Your task to perform on an android device: Add bose soundlink mini to the cart on amazon.com Image 0: 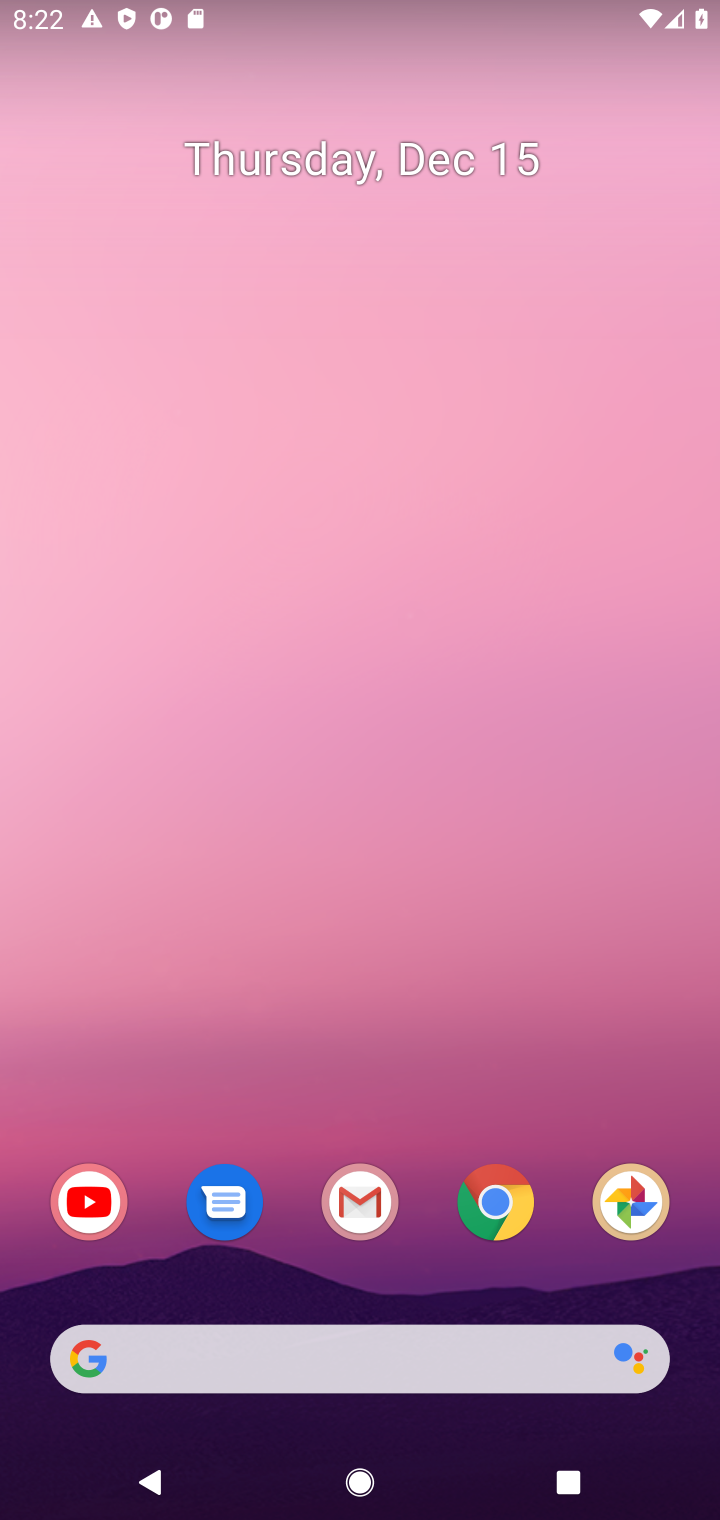
Step 0: click (481, 1220)
Your task to perform on an android device: Add bose soundlink mini to the cart on amazon.com Image 1: 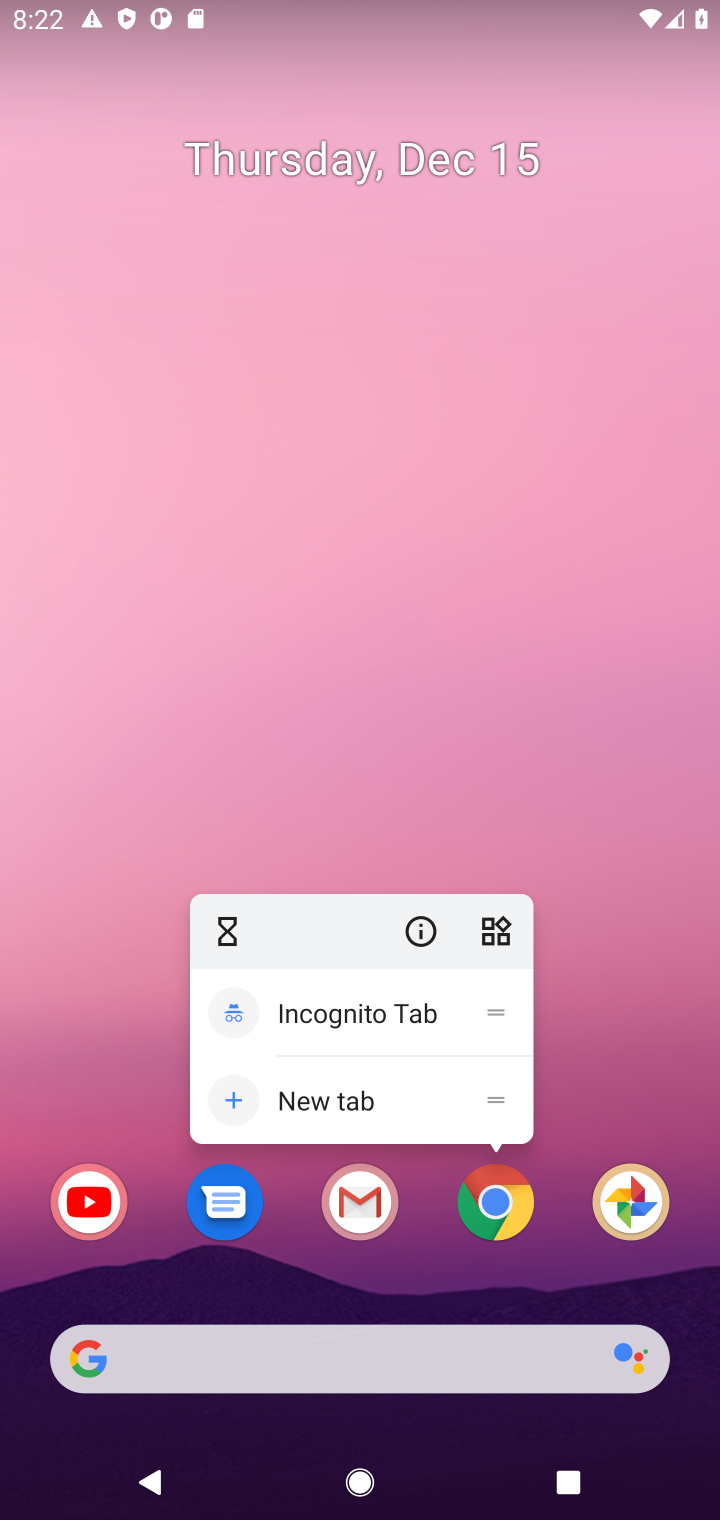
Step 1: click (481, 1220)
Your task to perform on an android device: Add bose soundlink mini to the cart on amazon.com Image 2: 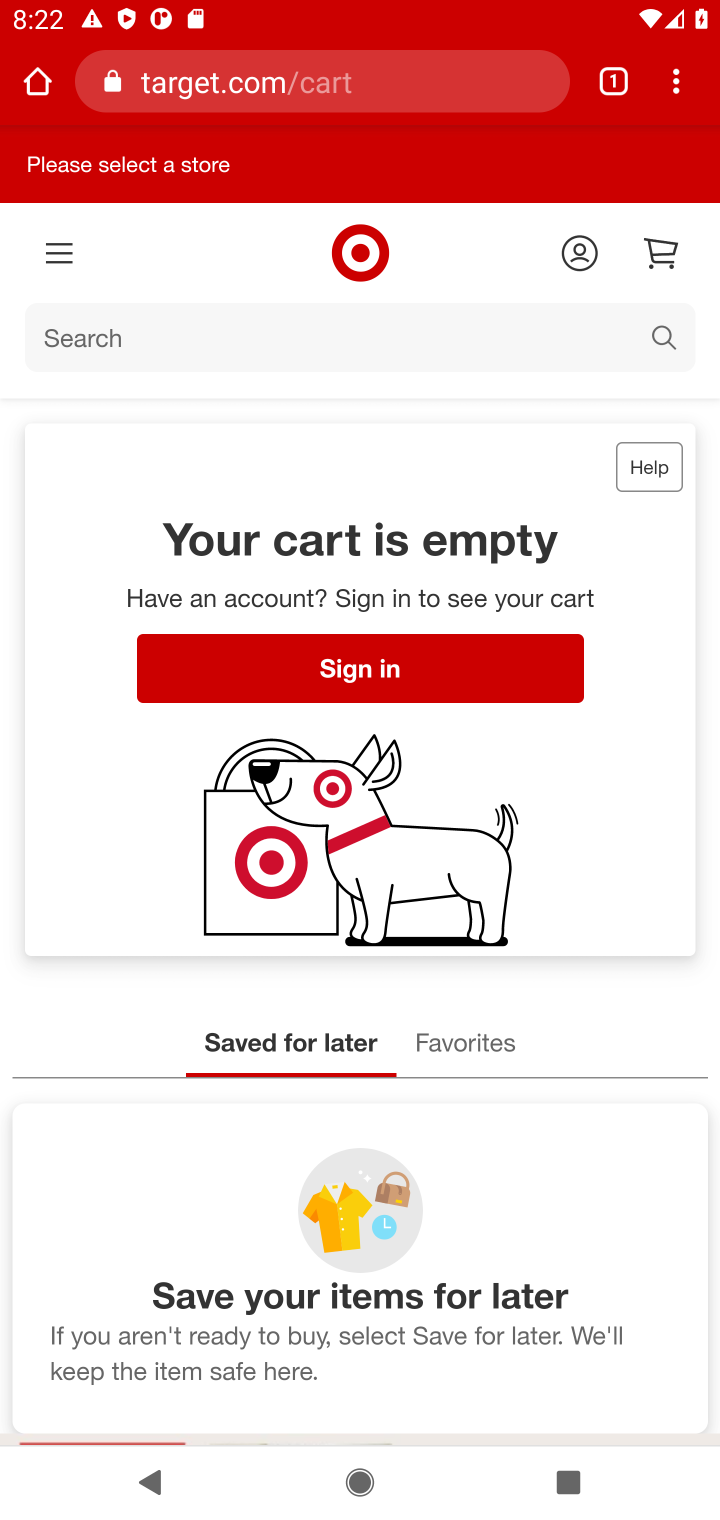
Step 2: click (265, 89)
Your task to perform on an android device: Add bose soundlink mini to the cart on amazon.com Image 3: 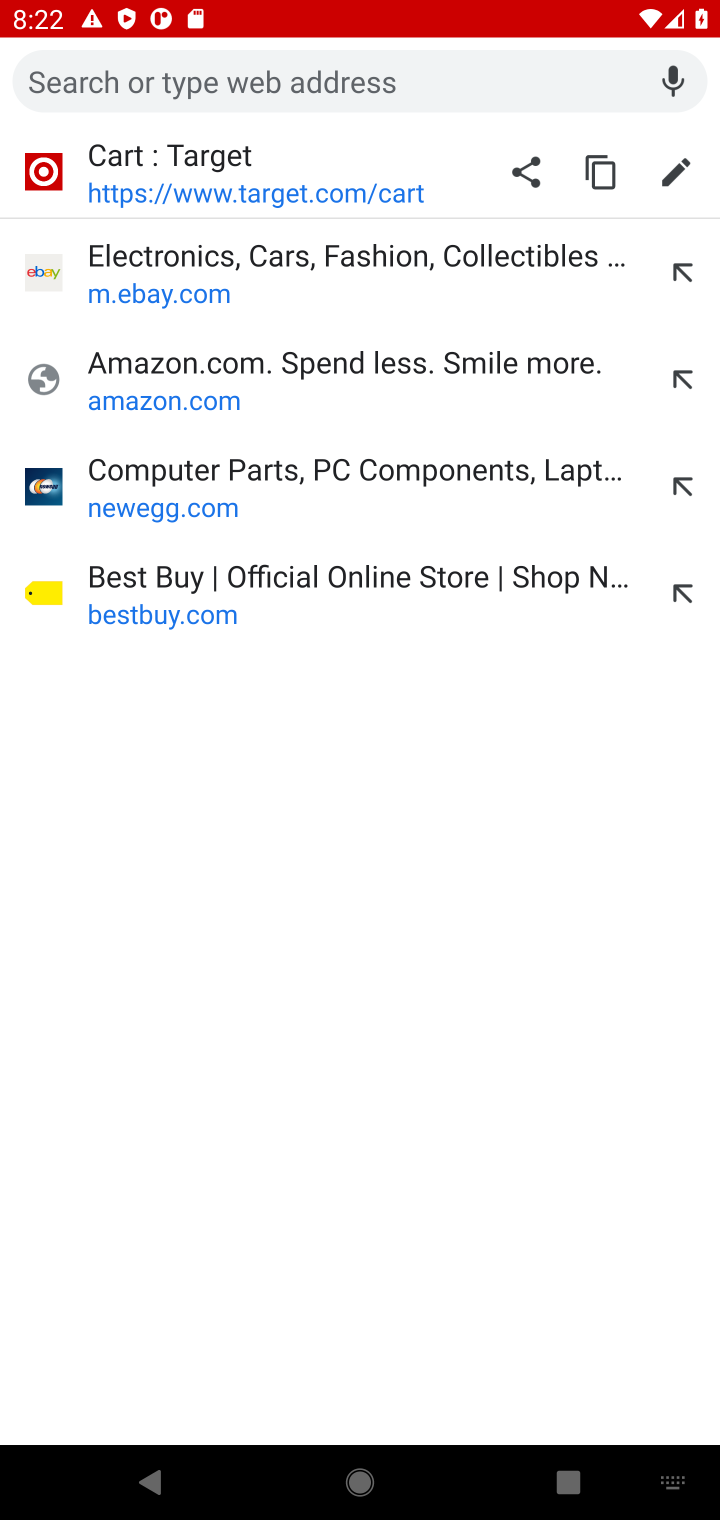
Step 3: click (157, 393)
Your task to perform on an android device: Add bose soundlink mini to the cart on amazon.com Image 4: 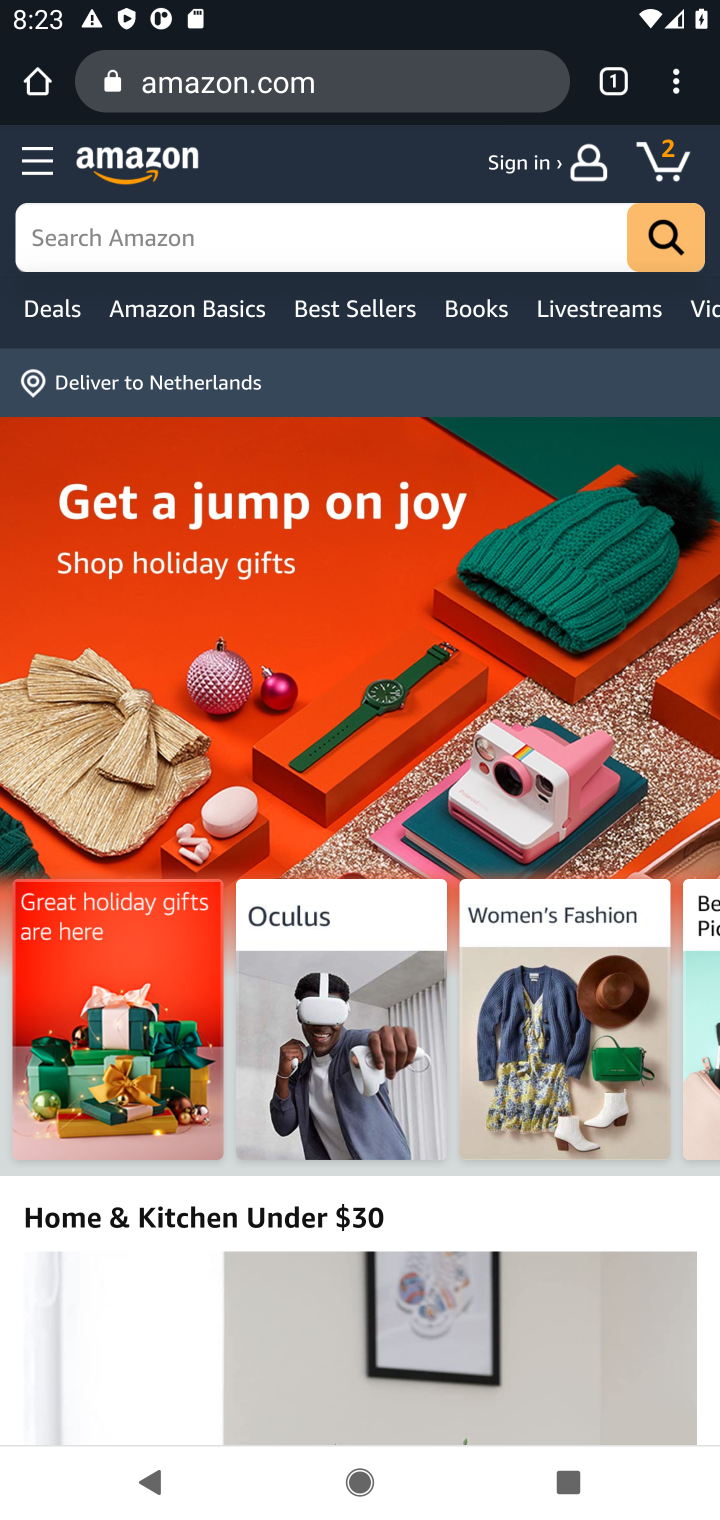
Step 4: click (91, 237)
Your task to perform on an android device: Add bose soundlink mini to the cart on amazon.com Image 5: 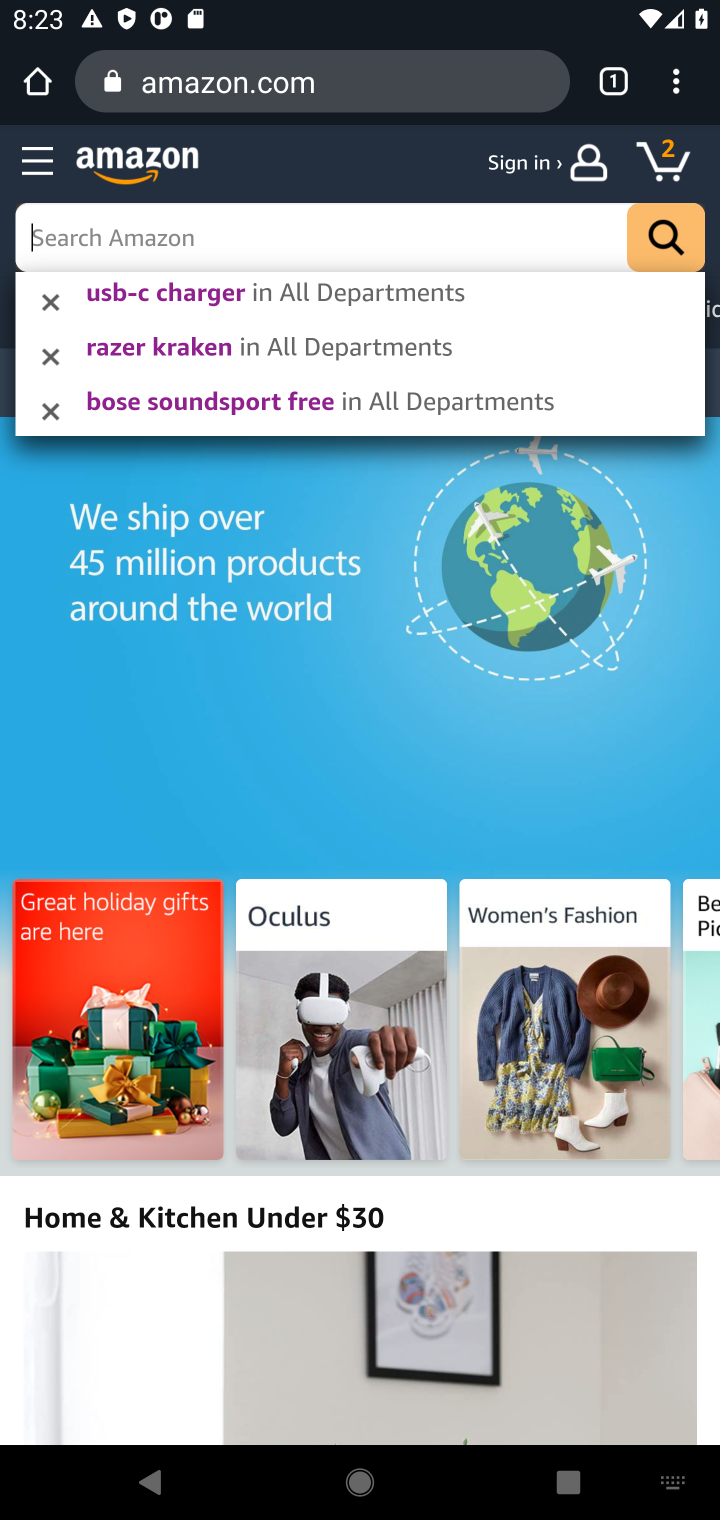
Step 5: type "bose soundlink mini"
Your task to perform on an android device: Add bose soundlink mini to the cart on amazon.com Image 6: 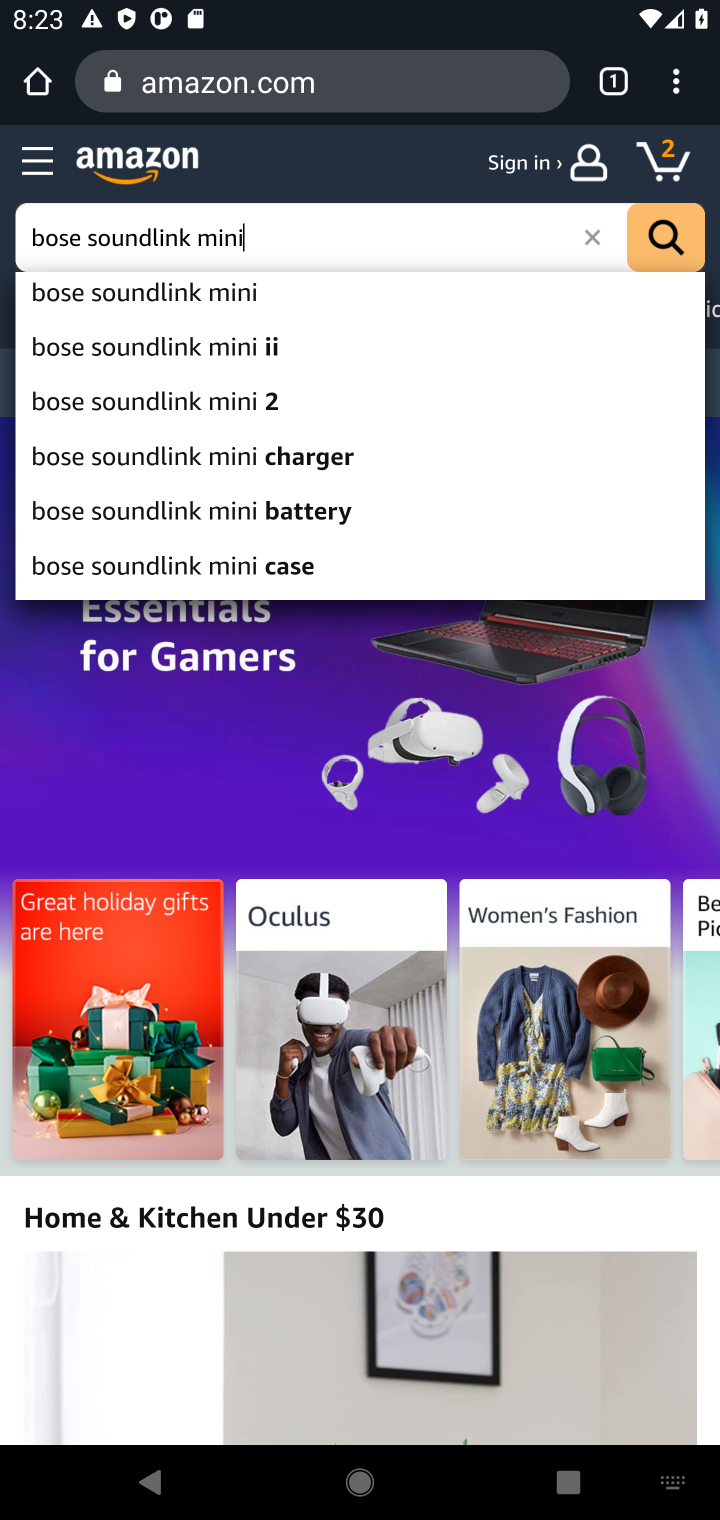
Step 6: click (99, 299)
Your task to perform on an android device: Add bose soundlink mini to the cart on amazon.com Image 7: 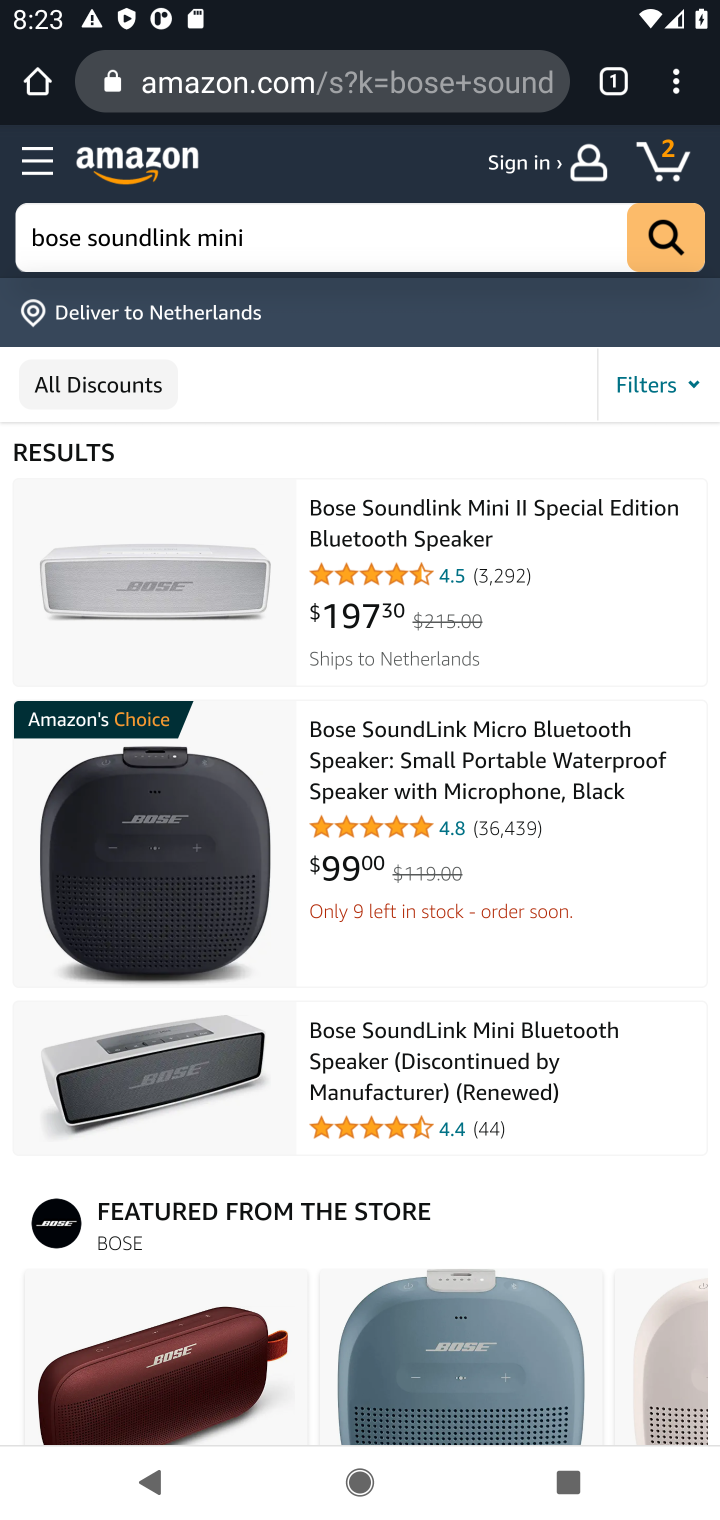
Step 7: click (383, 516)
Your task to perform on an android device: Add bose soundlink mini to the cart on amazon.com Image 8: 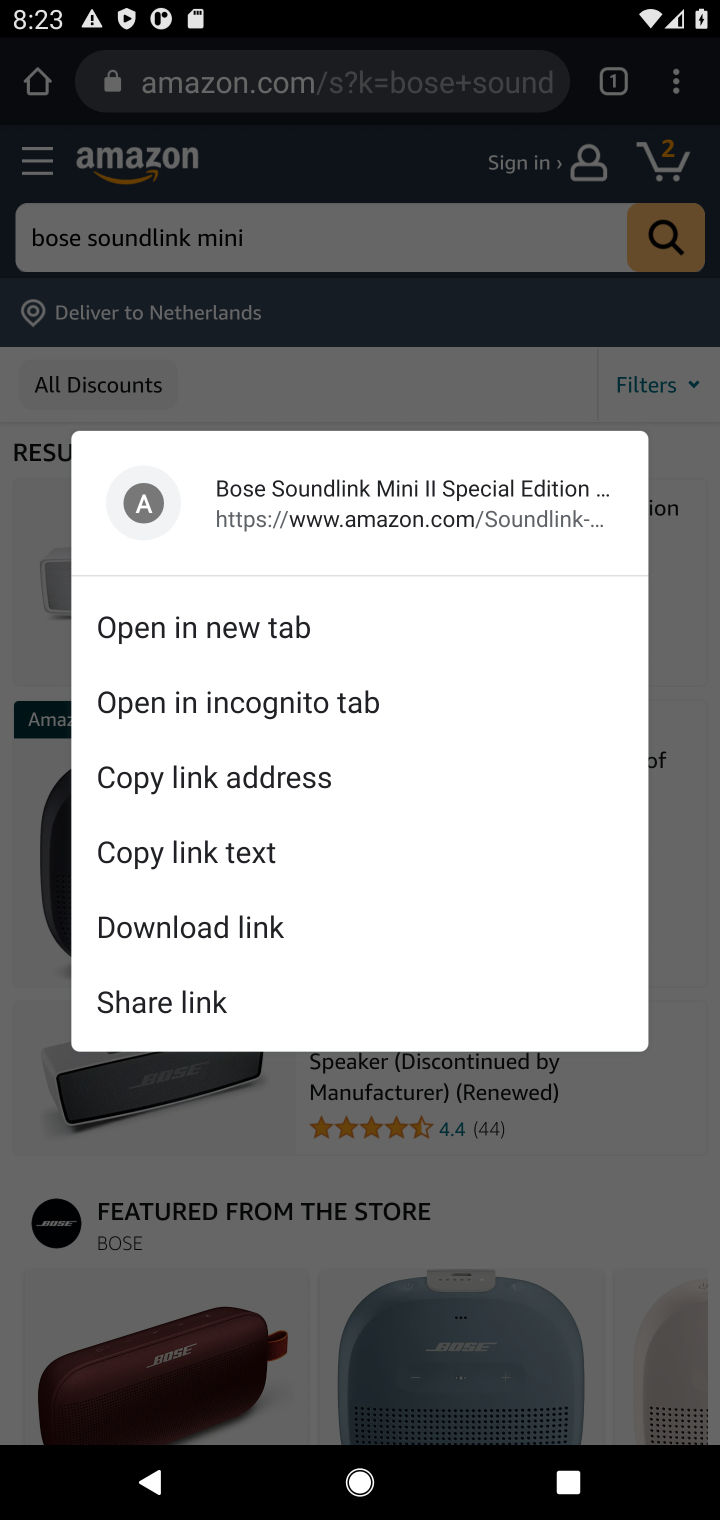
Step 8: click (689, 530)
Your task to perform on an android device: Add bose soundlink mini to the cart on amazon.com Image 9: 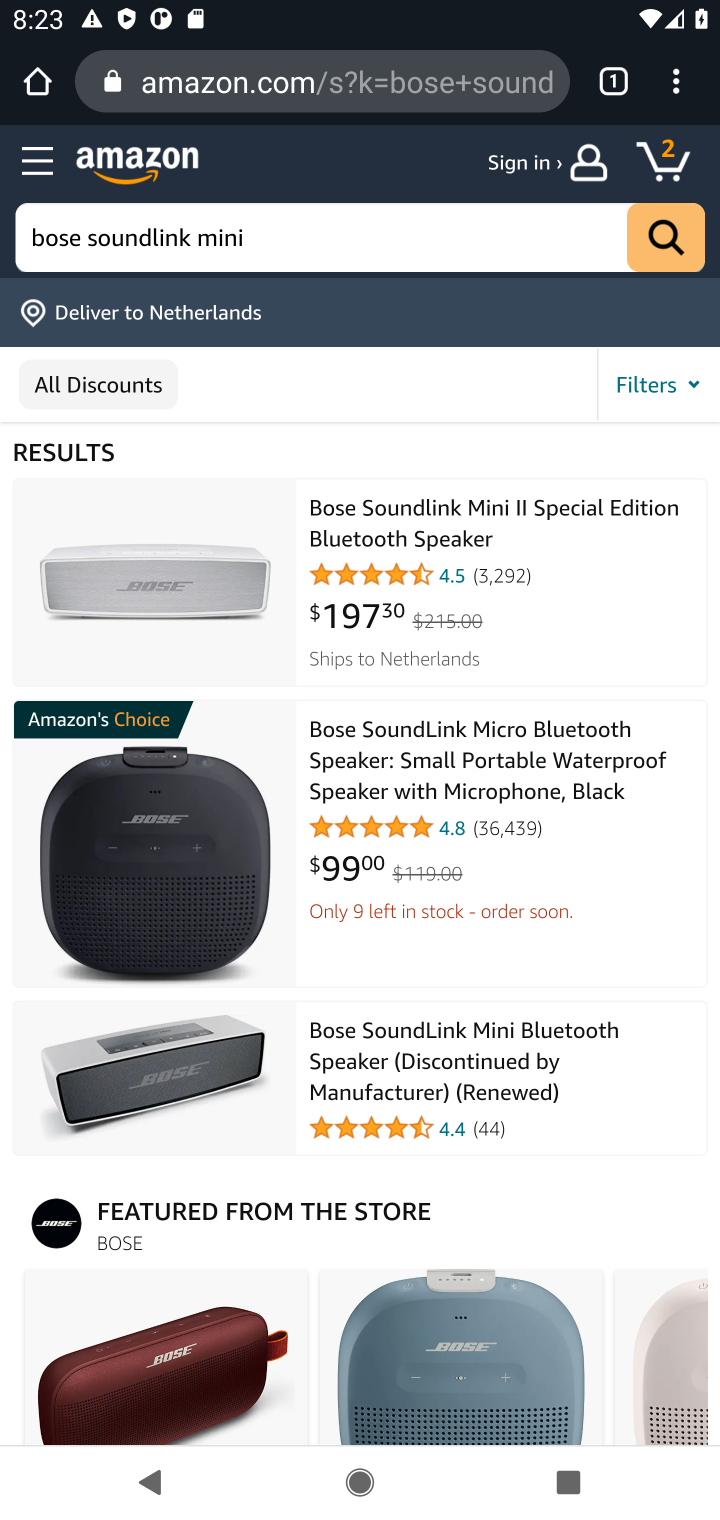
Step 9: click (370, 511)
Your task to perform on an android device: Add bose soundlink mini to the cart on amazon.com Image 10: 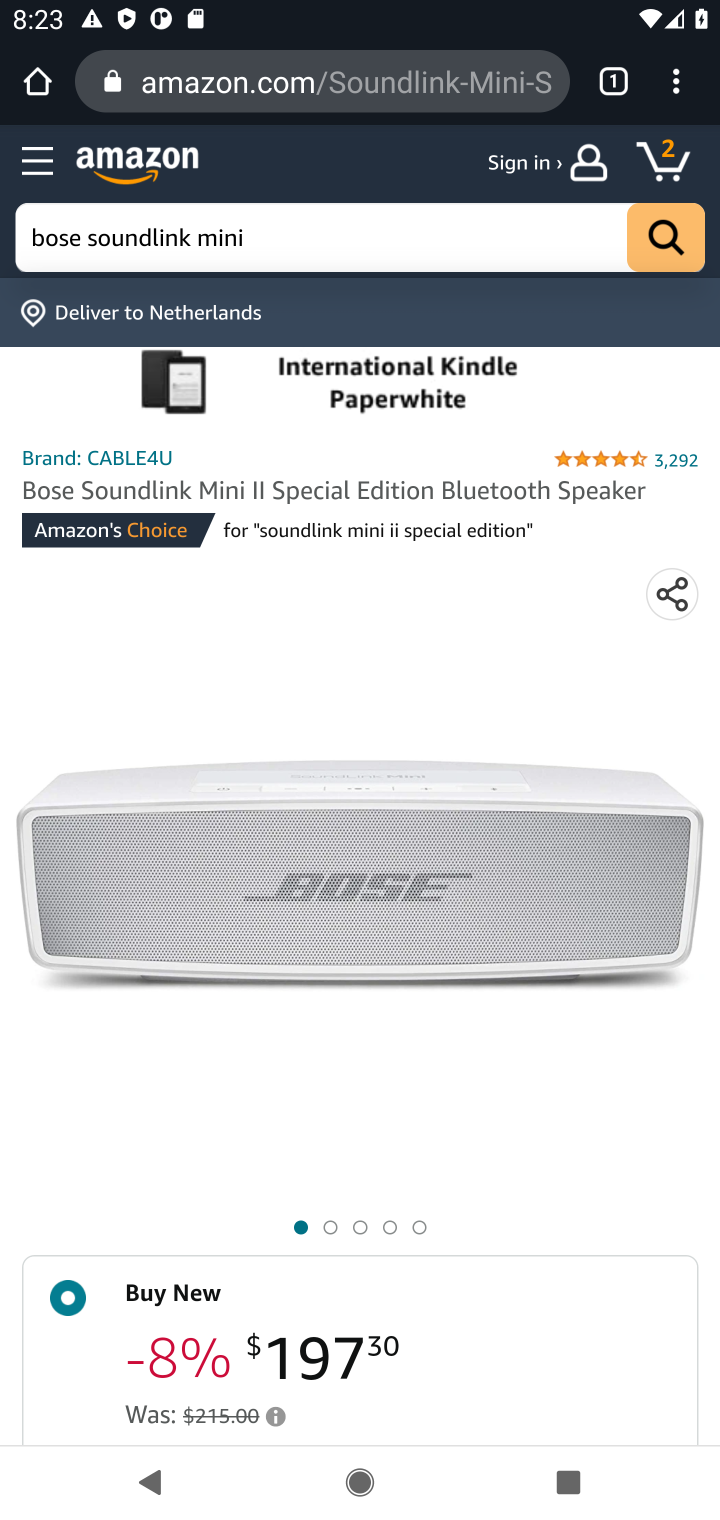
Step 10: drag from (261, 1130) to (306, 479)
Your task to perform on an android device: Add bose soundlink mini to the cart on amazon.com Image 11: 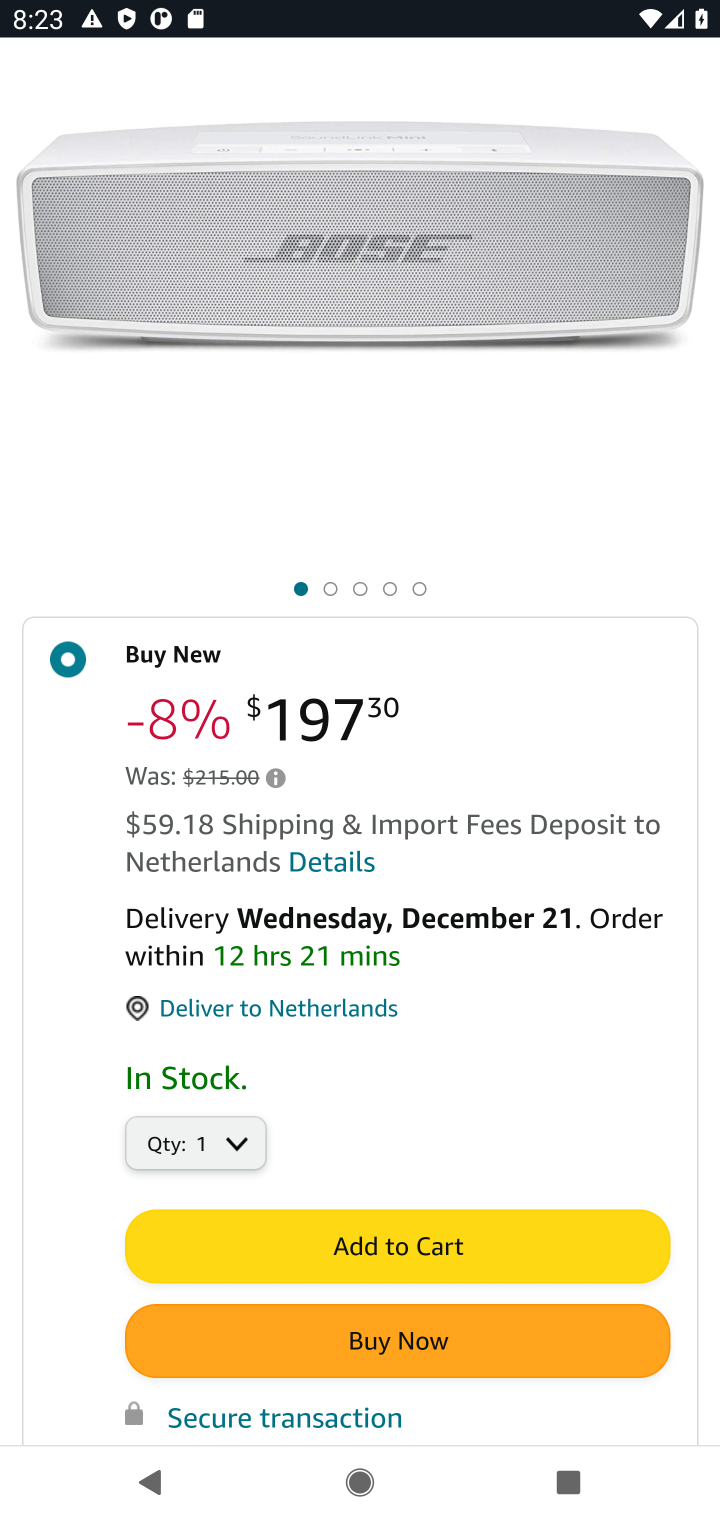
Step 11: click (382, 1229)
Your task to perform on an android device: Add bose soundlink mini to the cart on amazon.com Image 12: 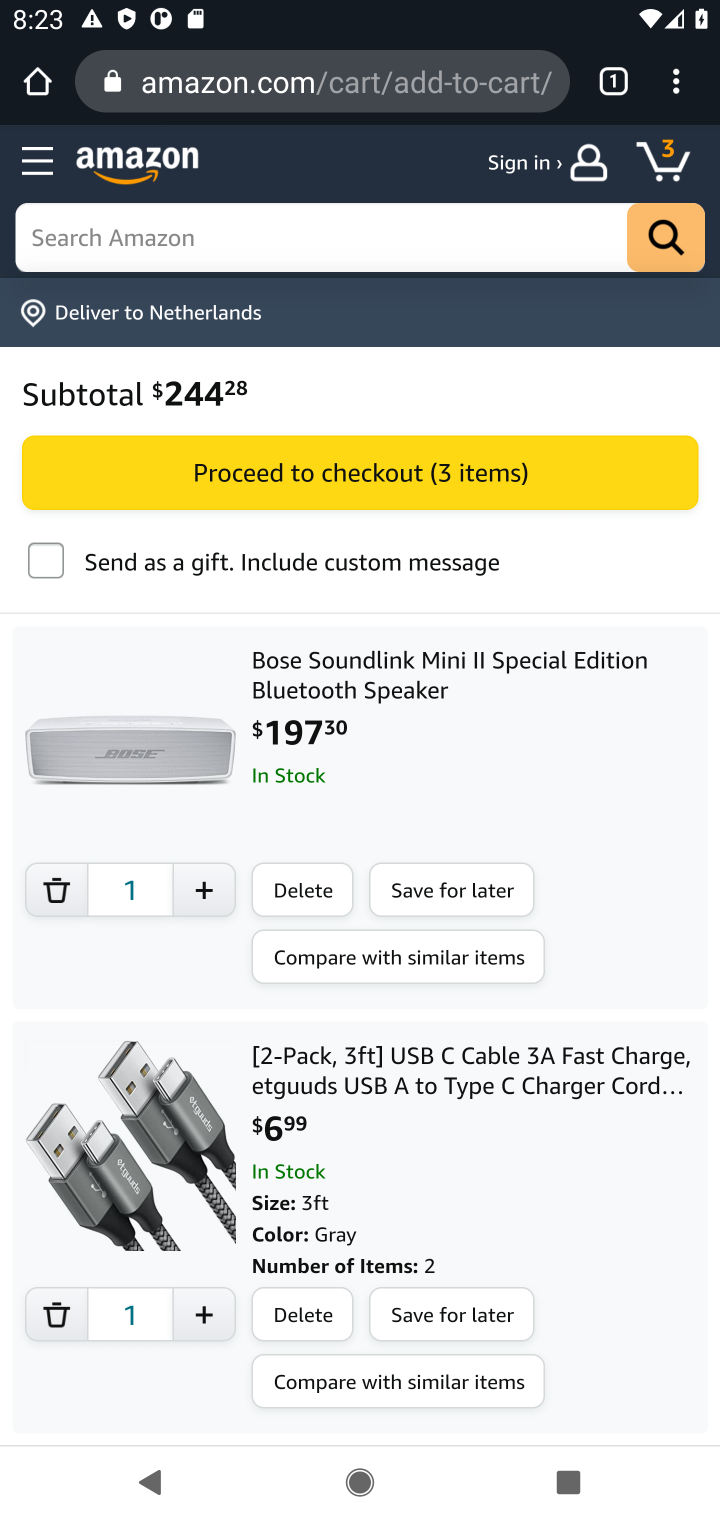
Step 12: task complete